Your task to perform on an android device: Show me popular videos on Youtube Image 0: 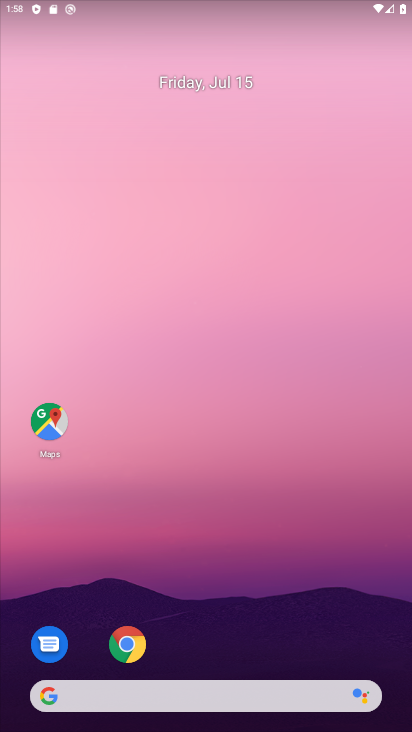
Step 0: drag from (219, 648) to (294, 14)
Your task to perform on an android device: Show me popular videos on Youtube Image 1: 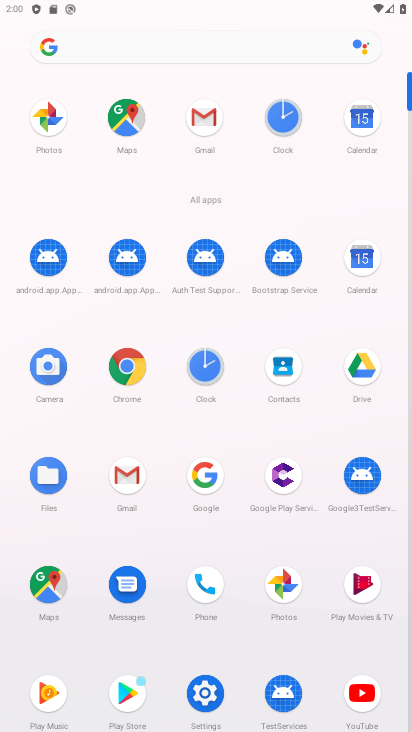
Step 1: click (366, 688)
Your task to perform on an android device: Show me popular videos on Youtube Image 2: 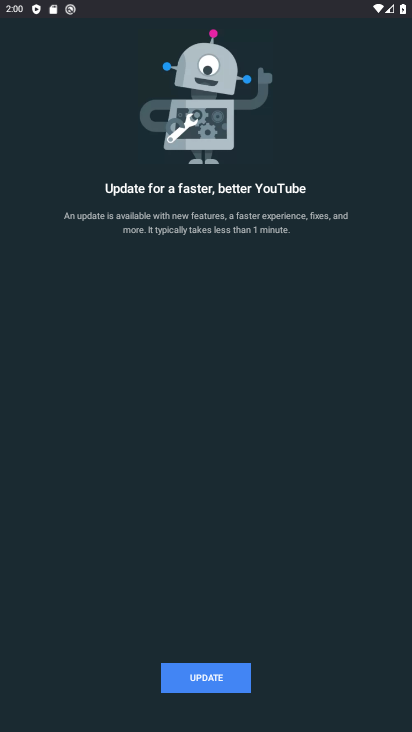
Step 2: task complete